Your task to perform on an android device: toggle translation in the chrome app Image 0: 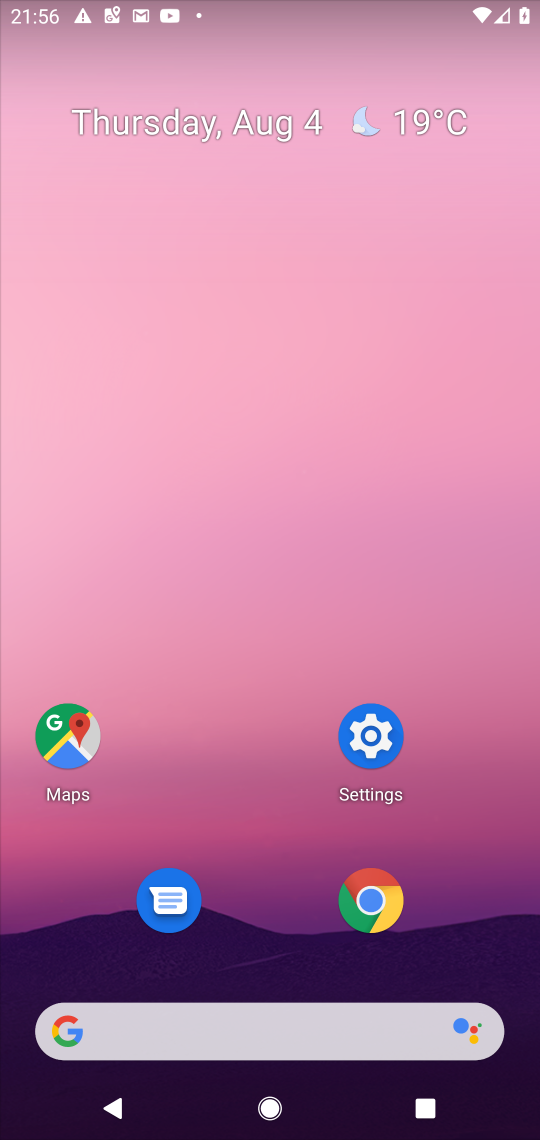
Step 0: click (366, 892)
Your task to perform on an android device: toggle translation in the chrome app Image 1: 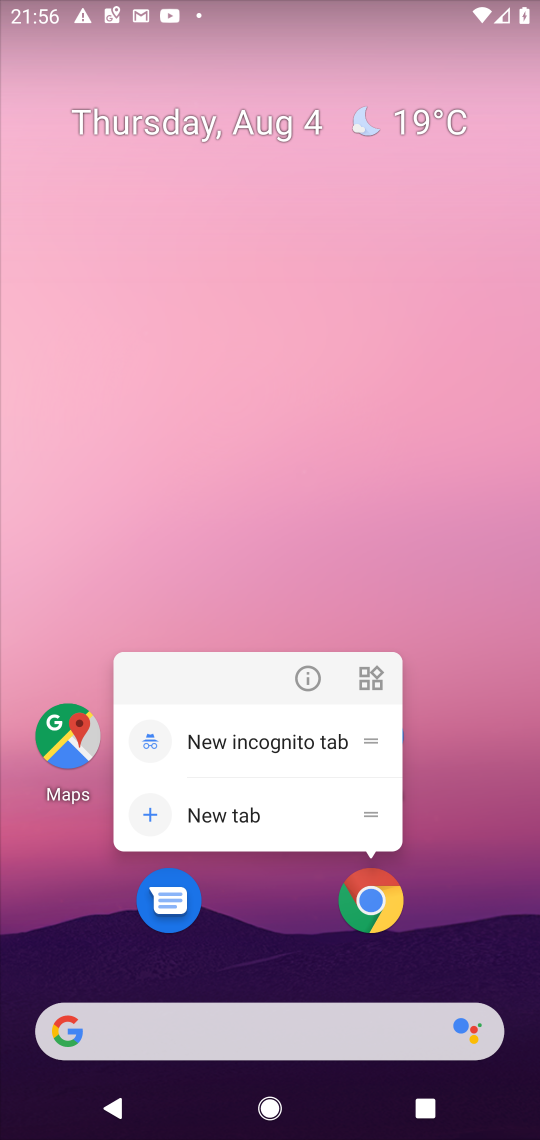
Step 1: click (366, 892)
Your task to perform on an android device: toggle translation in the chrome app Image 2: 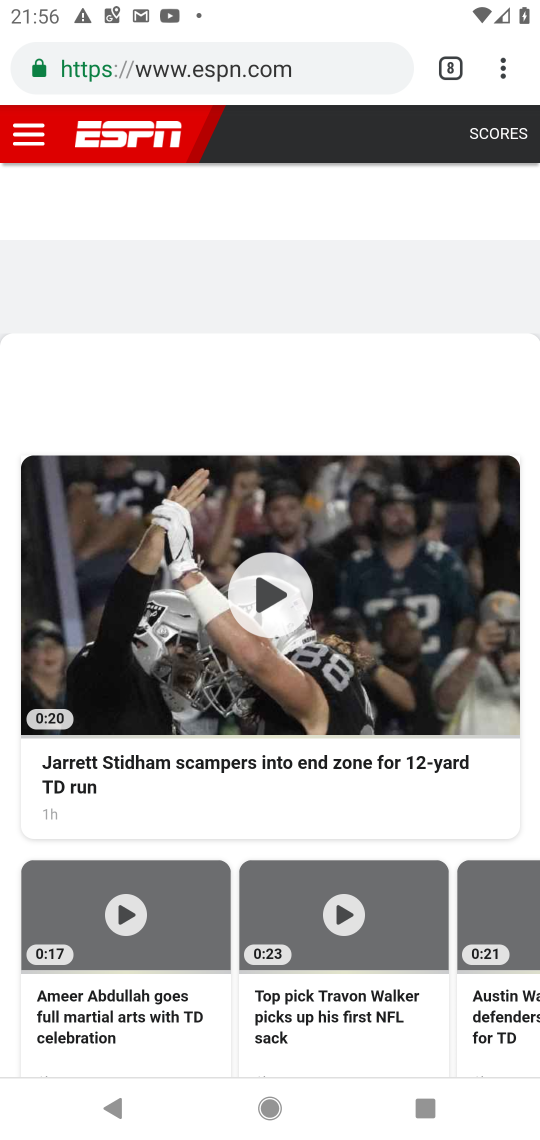
Step 2: drag from (504, 62) to (360, 898)
Your task to perform on an android device: toggle translation in the chrome app Image 3: 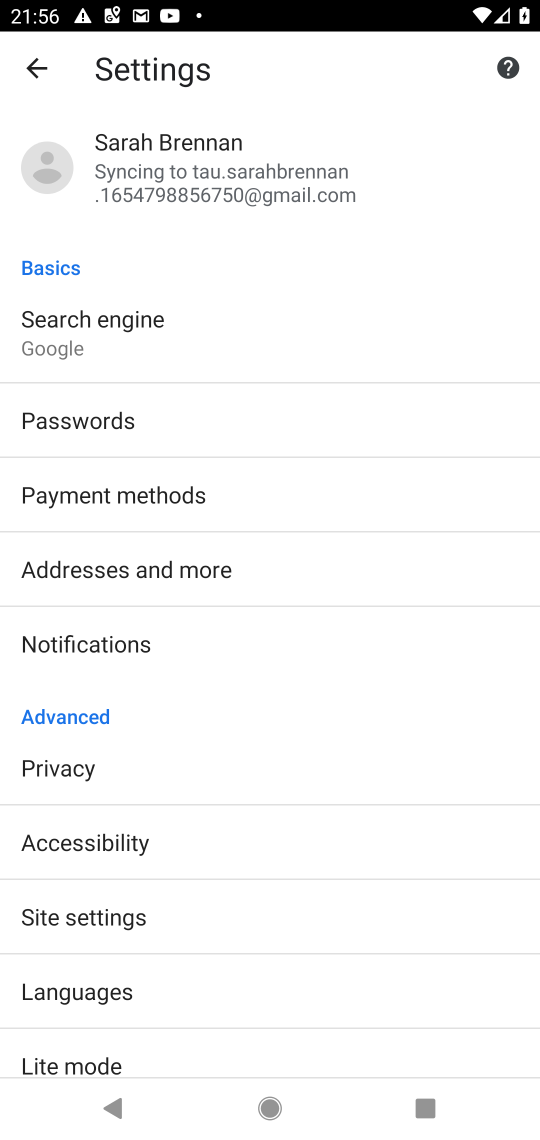
Step 3: click (111, 995)
Your task to perform on an android device: toggle translation in the chrome app Image 4: 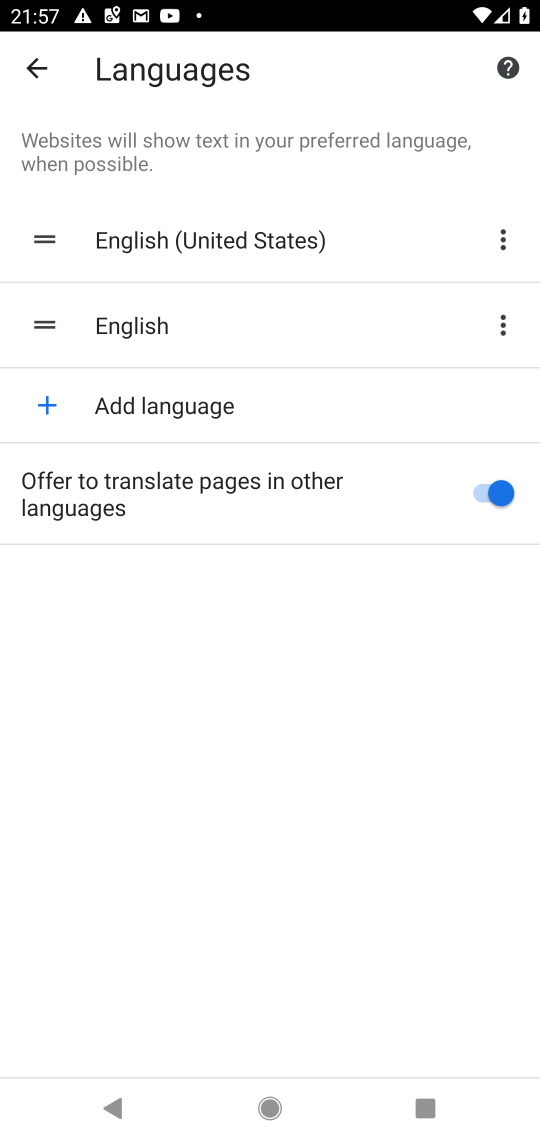
Step 4: click (481, 484)
Your task to perform on an android device: toggle translation in the chrome app Image 5: 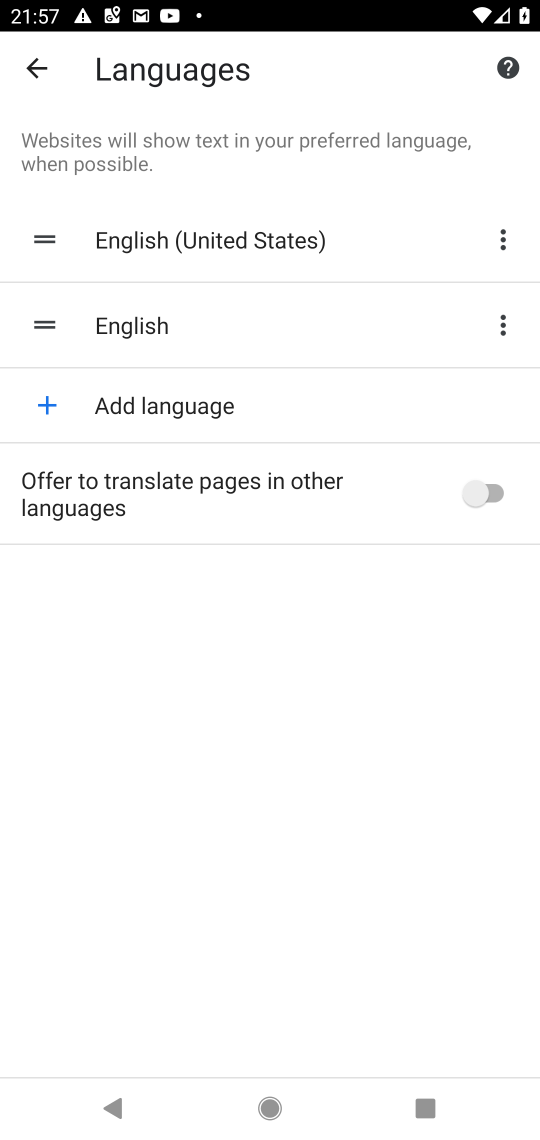
Step 5: task complete